Your task to perform on an android device: Search for seafood restaurants on Google Maps Image 0: 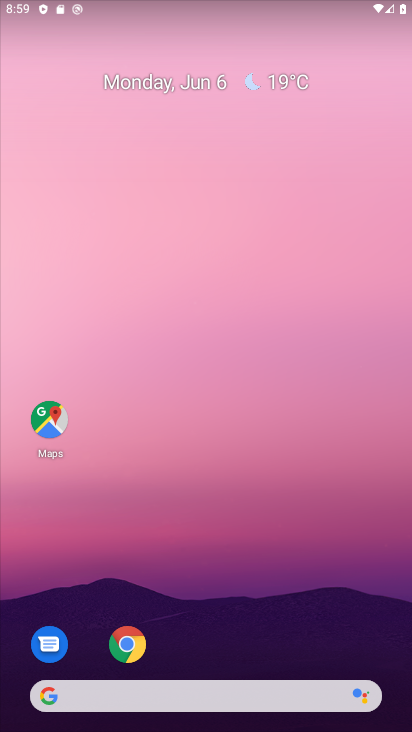
Step 0: click (43, 431)
Your task to perform on an android device: Search for seafood restaurants on Google Maps Image 1: 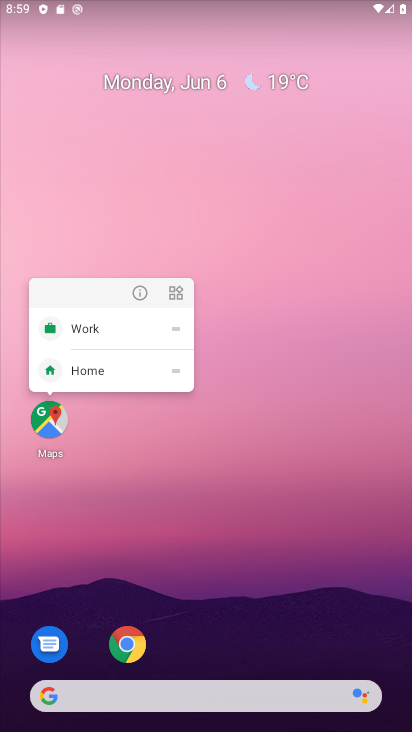
Step 1: click (44, 434)
Your task to perform on an android device: Search for seafood restaurants on Google Maps Image 2: 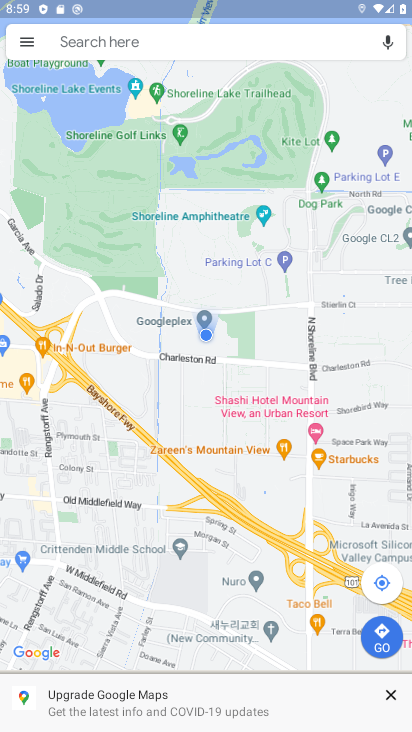
Step 2: click (396, 696)
Your task to perform on an android device: Search for seafood restaurants on Google Maps Image 3: 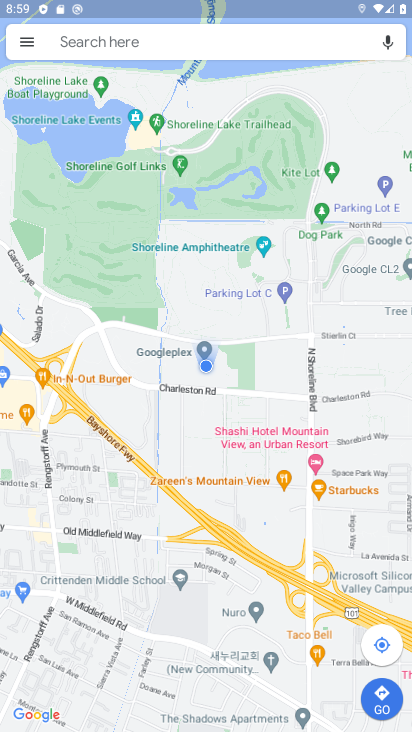
Step 3: click (117, 43)
Your task to perform on an android device: Search for seafood restaurants on Google Maps Image 4: 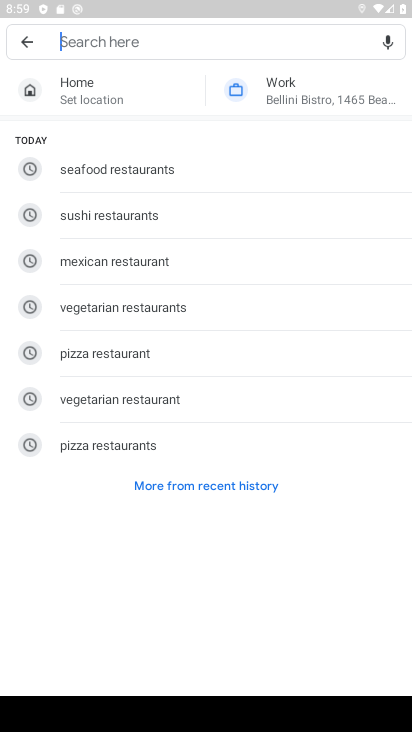
Step 4: type "seafood restaurants"
Your task to perform on an android device: Search for seafood restaurants on Google Maps Image 5: 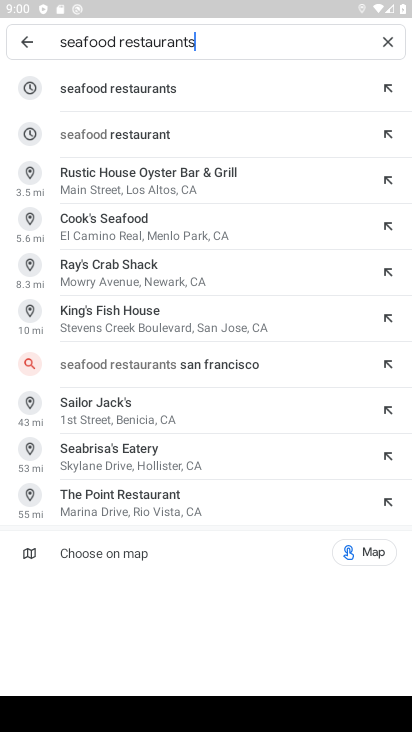
Step 5: click (235, 95)
Your task to perform on an android device: Search for seafood restaurants on Google Maps Image 6: 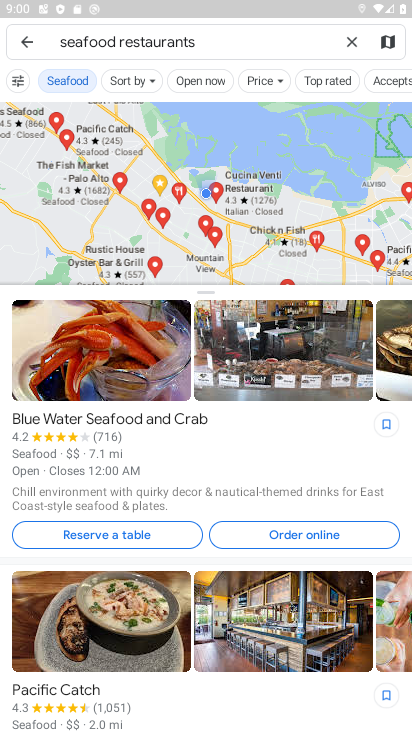
Step 6: task complete